Your task to perform on an android device: Go to Maps Image 0: 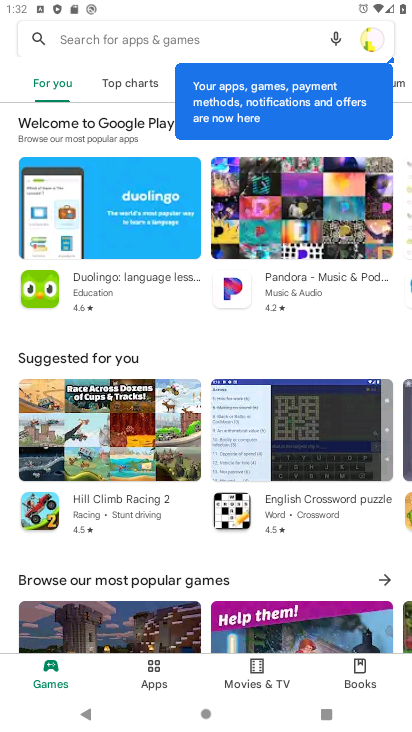
Step 0: press home button
Your task to perform on an android device: Go to Maps Image 1: 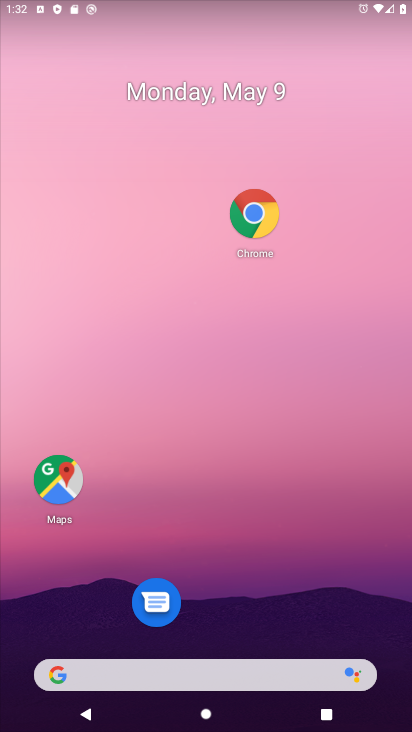
Step 1: click (55, 480)
Your task to perform on an android device: Go to Maps Image 2: 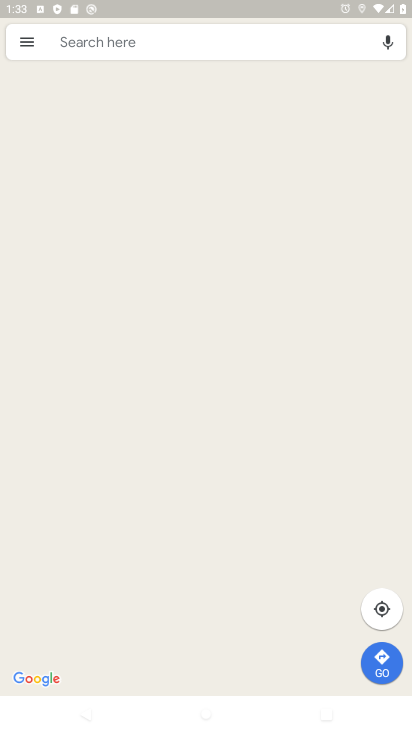
Step 2: task complete